Your task to perform on an android device: turn pop-ups off in chrome Image 0: 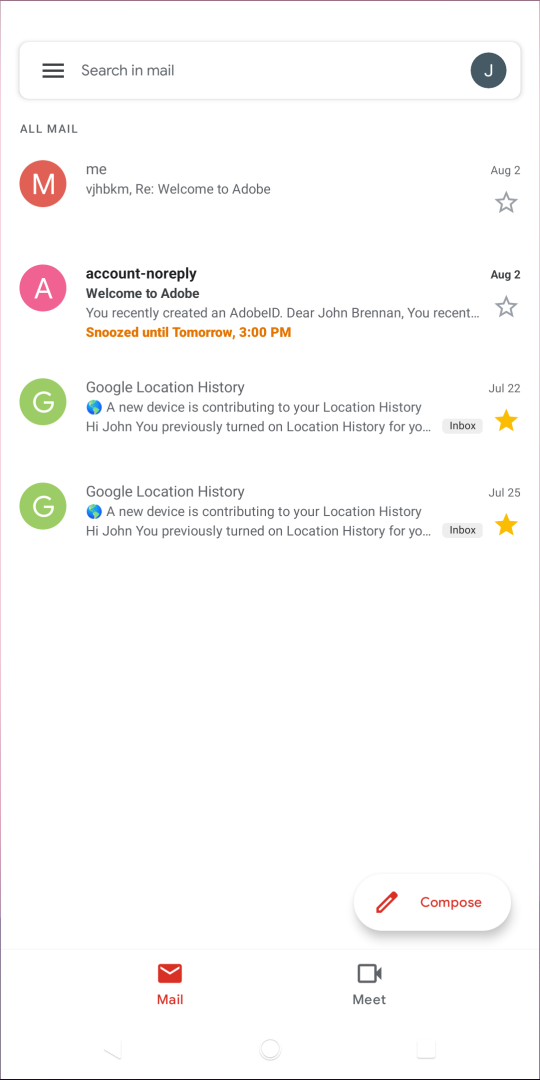
Step 0: press home button
Your task to perform on an android device: turn pop-ups off in chrome Image 1: 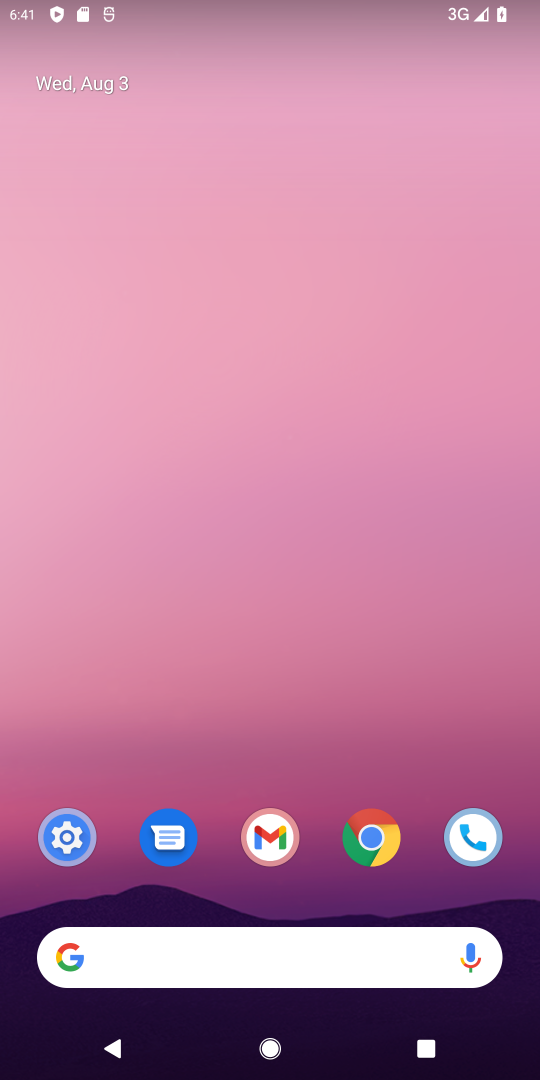
Step 1: click (385, 839)
Your task to perform on an android device: turn pop-ups off in chrome Image 2: 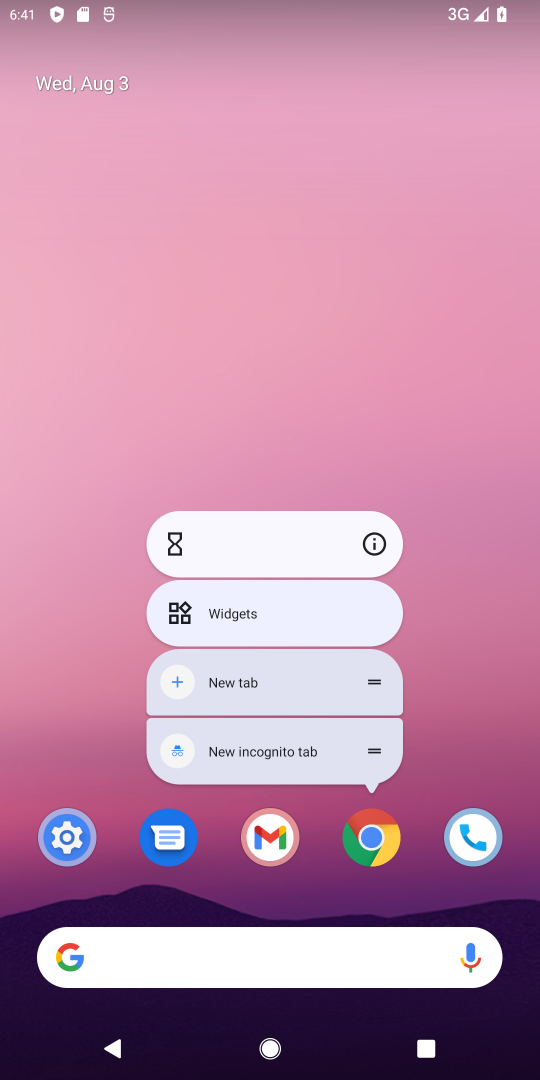
Step 2: click (372, 835)
Your task to perform on an android device: turn pop-ups off in chrome Image 3: 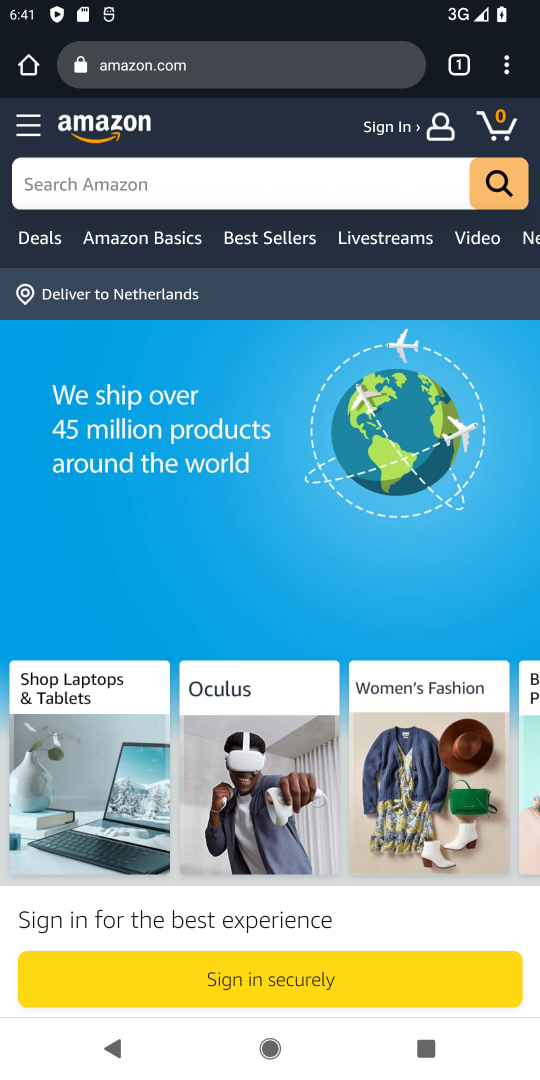
Step 3: drag from (502, 62) to (301, 849)
Your task to perform on an android device: turn pop-ups off in chrome Image 4: 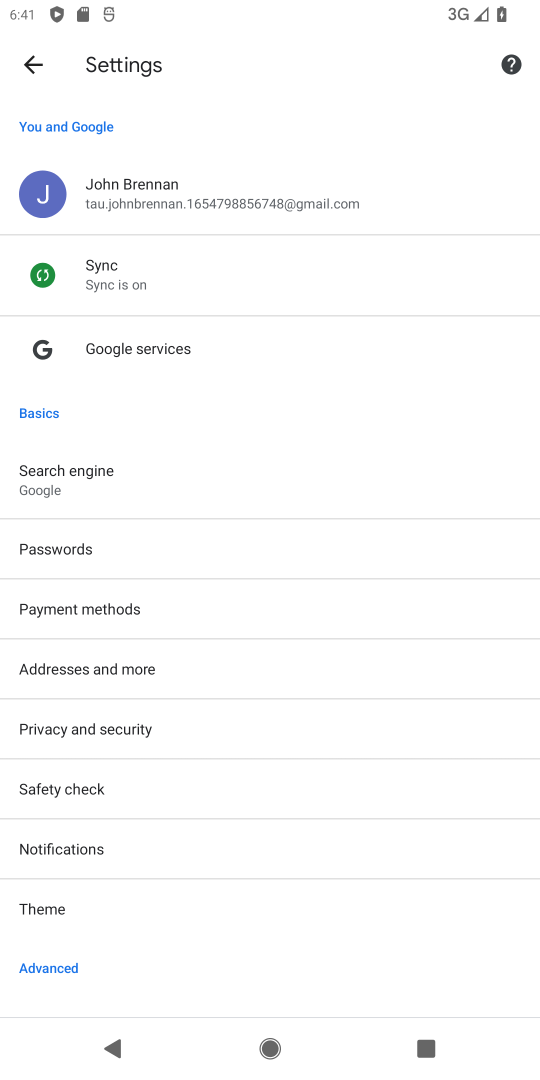
Step 4: drag from (206, 925) to (226, 331)
Your task to perform on an android device: turn pop-ups off in chrome Image 5: 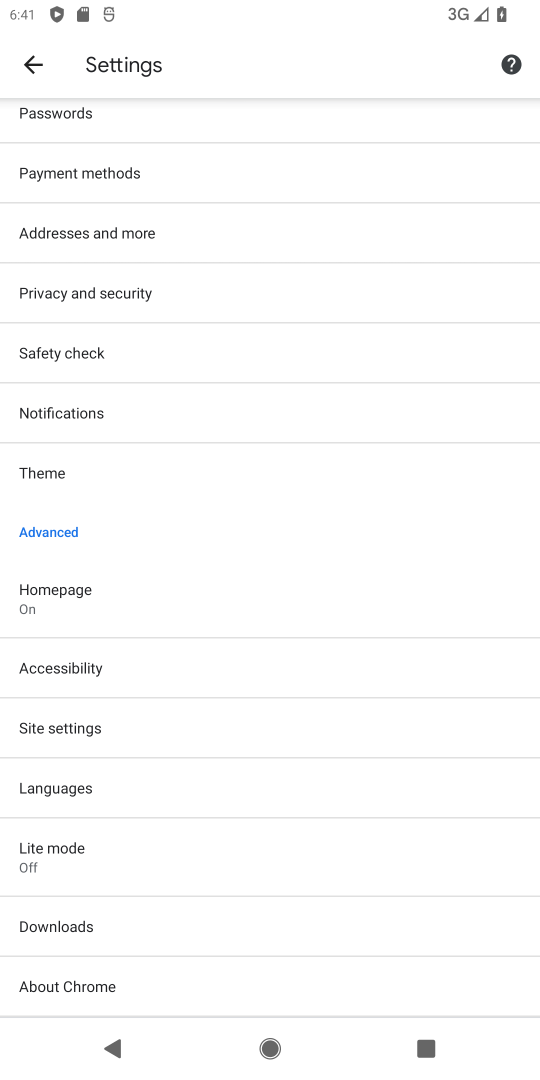
Step 5: click (41, 723)
Your task to perform on an android device: turn pop-ups off in chrome Image 6: 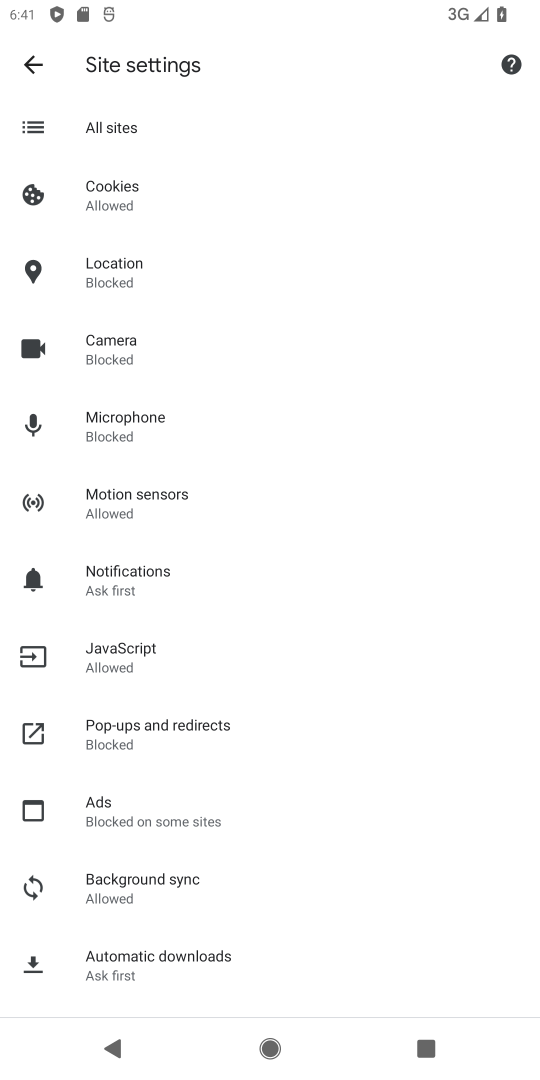
Step 6: click (157, 734)
Your task to perform on an android device: turn pop-ups off in chrome Image 7: 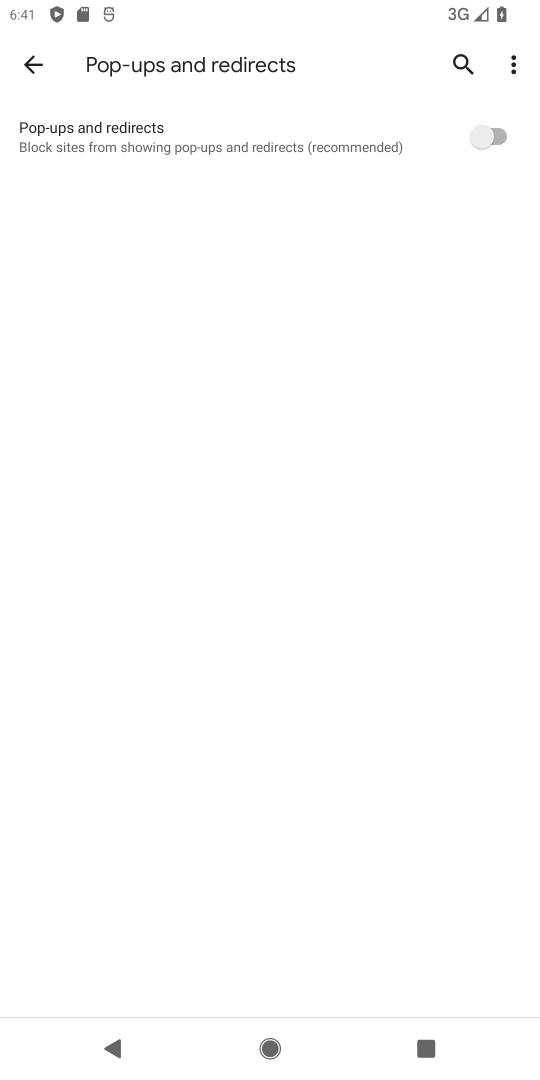
Step 7: task complete